Your task to perform on an android device: Go to calendar. Show me events next week Image 0: 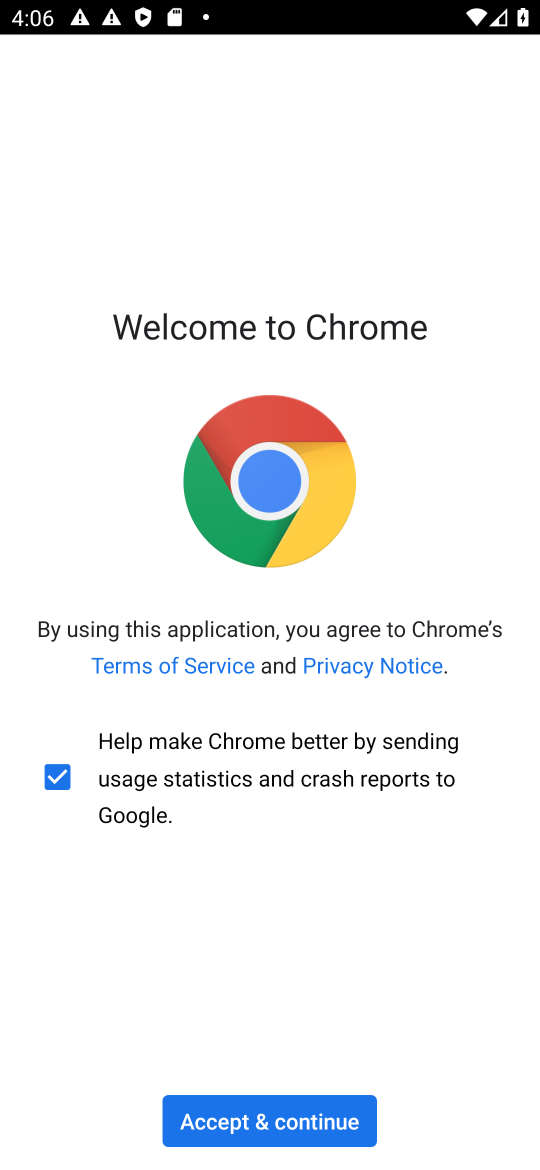
Step 0: press home button
Your task to perform on an android device: Go to calendar. Show me events next week Image 1: 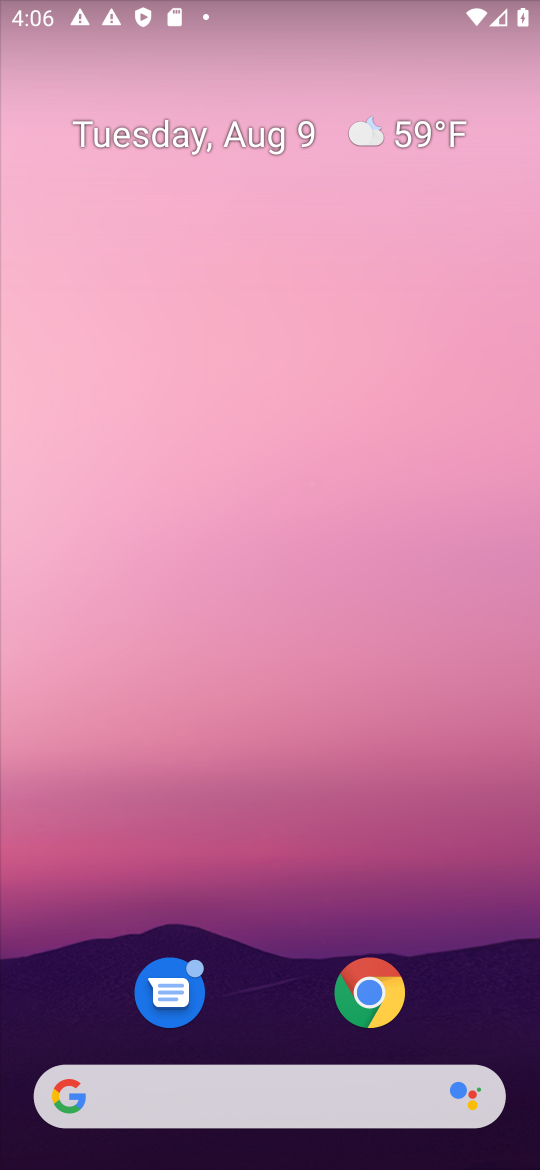
Step 1: drag from (203, 1102) to (276, 190)
Your task to perform on an android device: Go to calendar. Show me events next week Image 2: 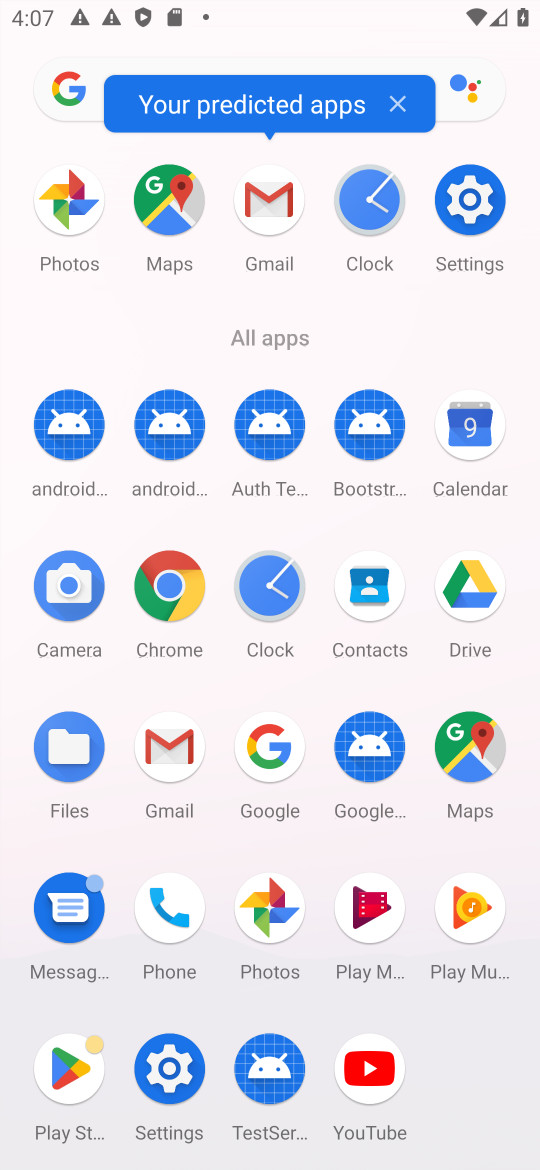
Step 2: click (476, 390)
Your task to perform on an android device: Go to calendar. Show me events next week Image 3: 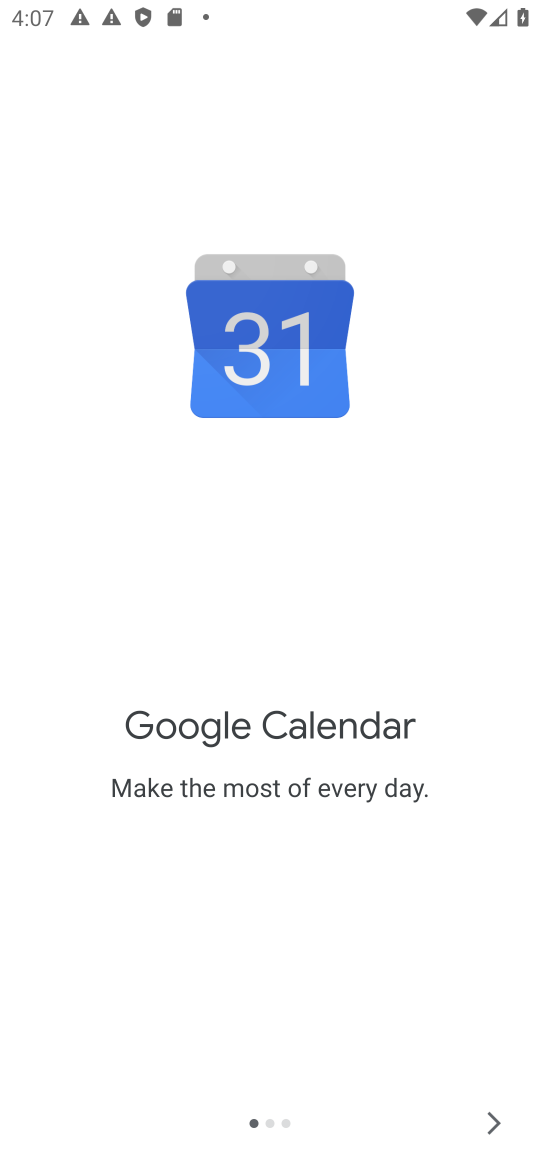
Step 3: click (493, 1120)
Your task to perform on an android device: Go to calendar. Show me events next week Image 4: 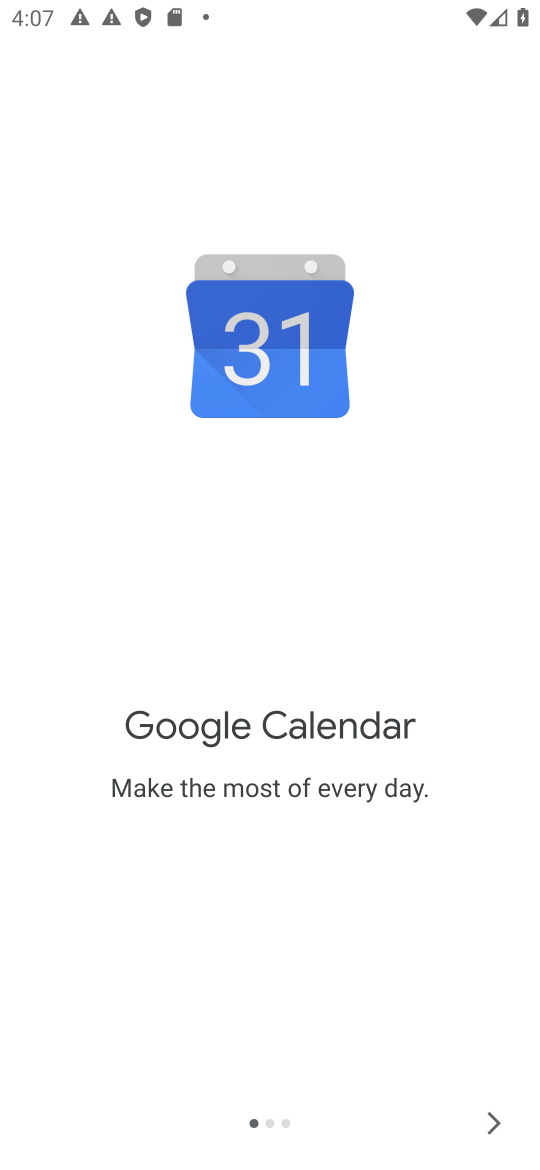
Step 4: click (493, 1120)
Your task to perform on an android device: Go to calendar. Show me events next week Image 5: 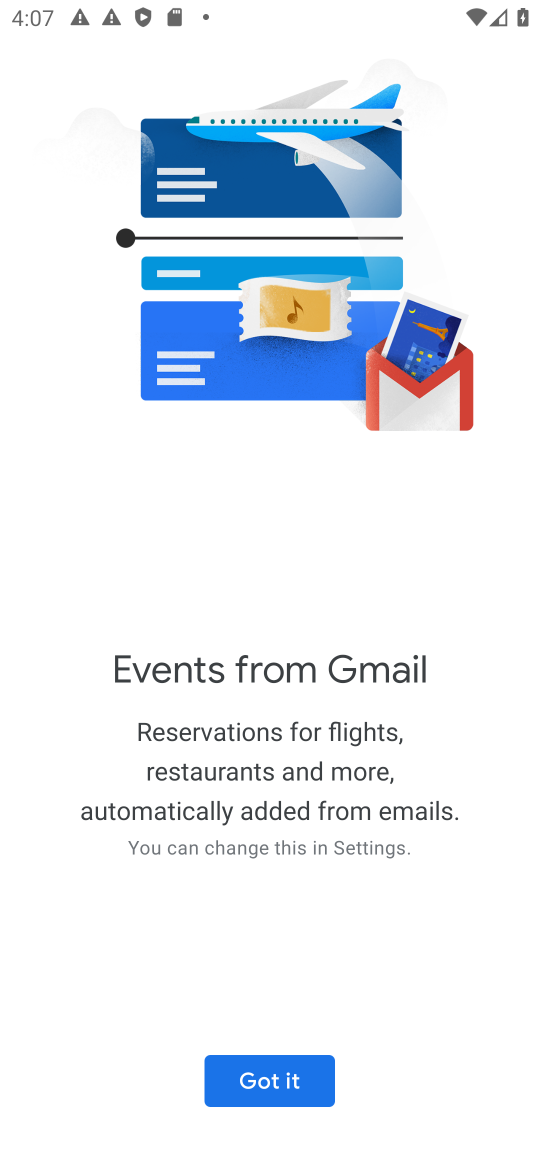
Step 5: click (288, 1061)
Your task to perform on an android device: Go to calendar. Show me events next week Image 6: 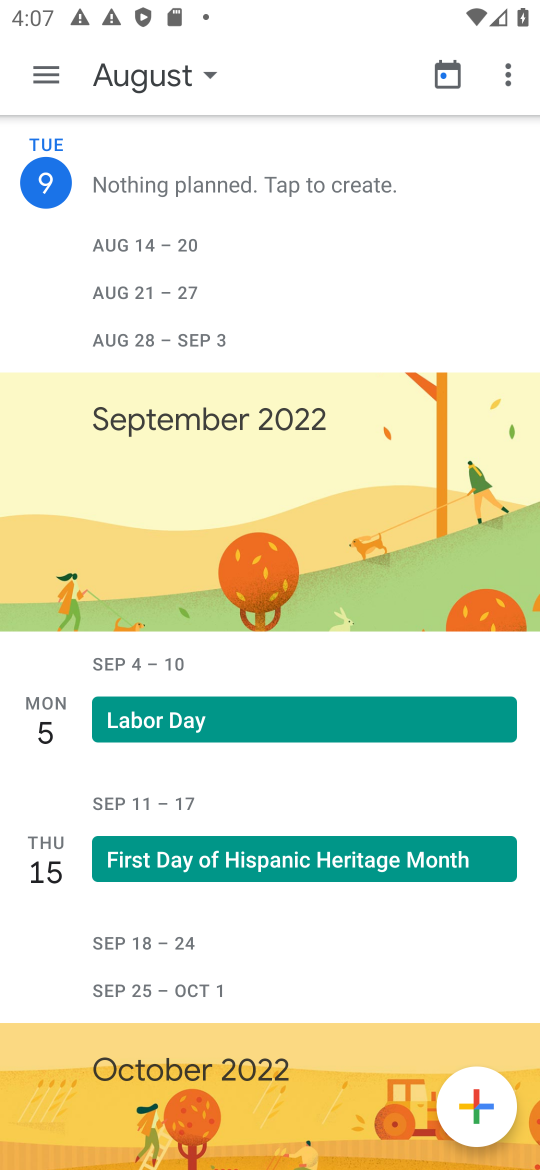
Step 6: click (215, 75)
Your task to perform on an android device: Go to calendar. Show me events next week Image 7: 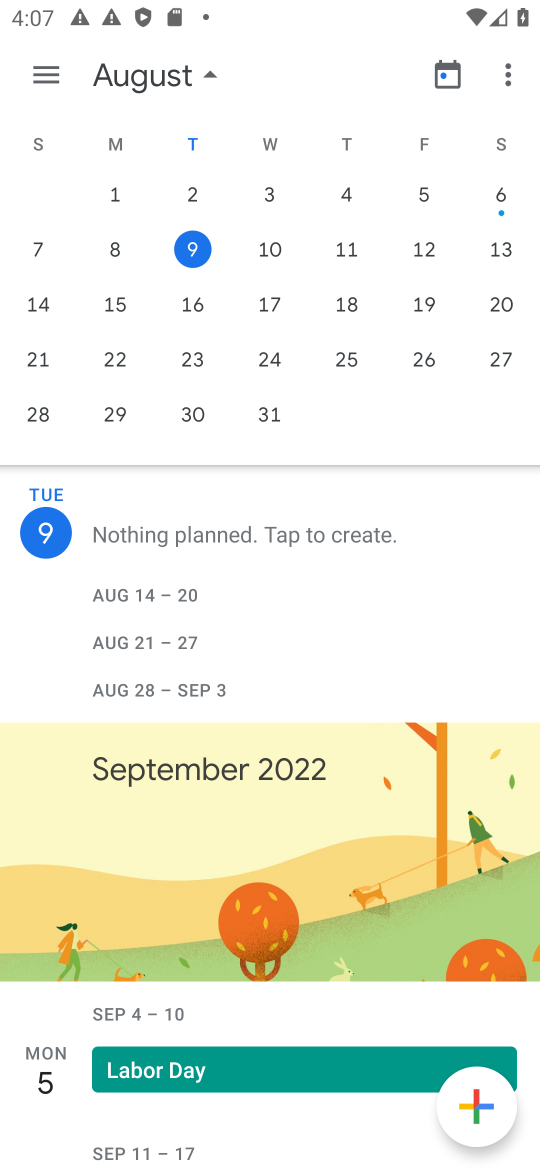
Step 7: click (282, 252)
Your task to perform on an android device: Go to calendar. Show me events next week Image 8: 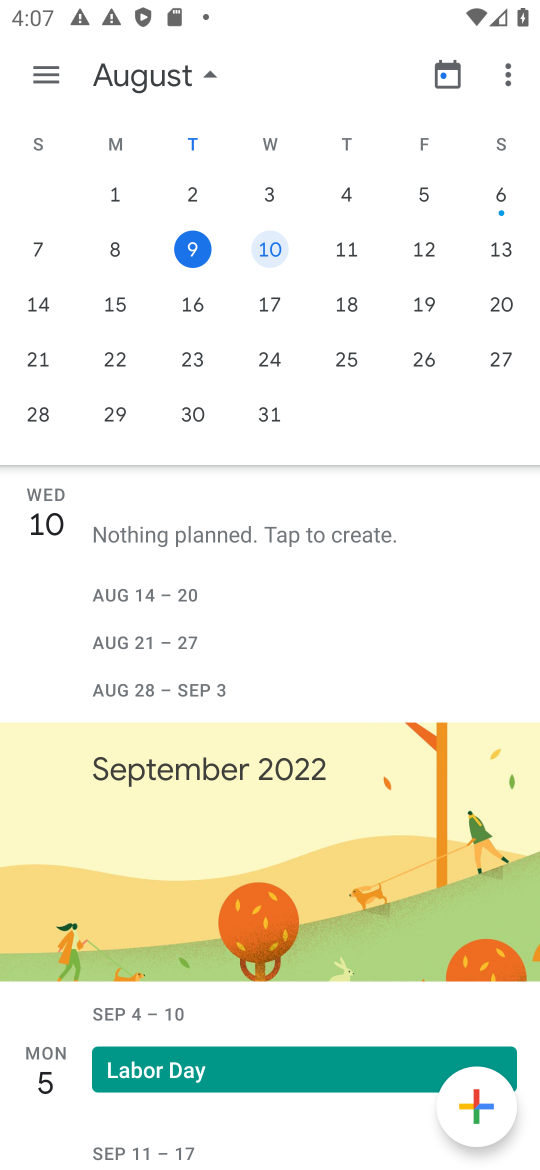
Step 8: click (272, 303)
Your task to perform on an android device: Go to calendar. Show me events next week Image 9: 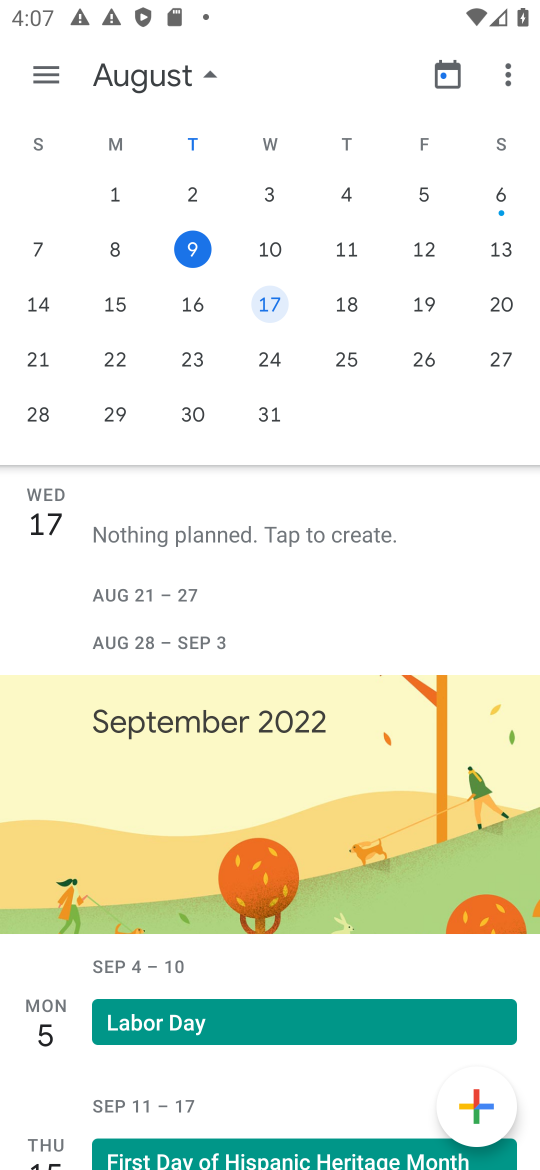
Step 9: click (8, 80)
Your task to perform on an android device: Go to calendar. Show me events next week Image 10: 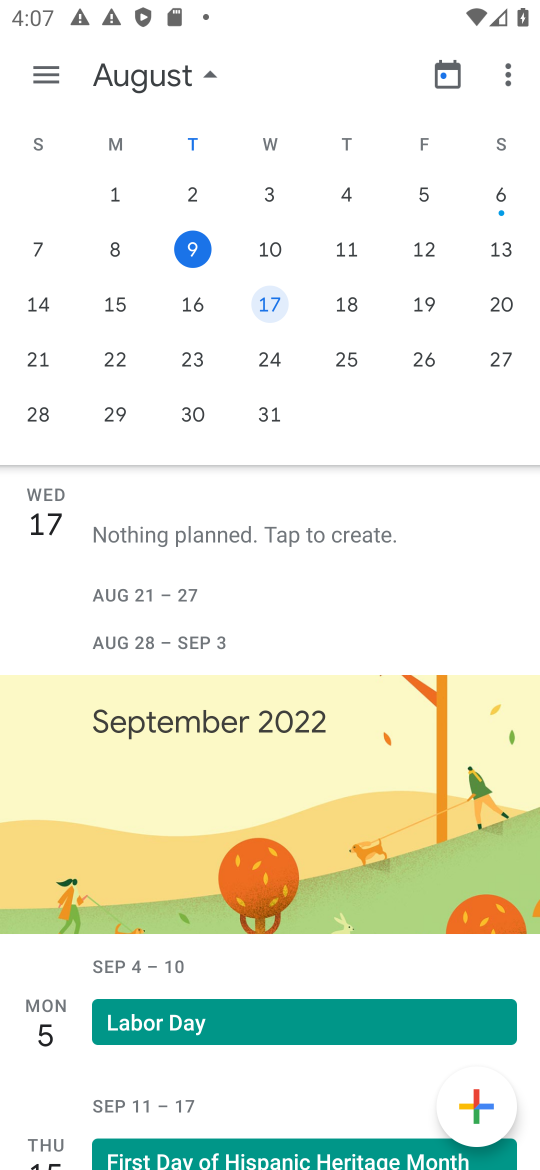
Step 10: click (29, 80)
Your task to perform on an android device: Go to calendar. Show me events next week Image 11: 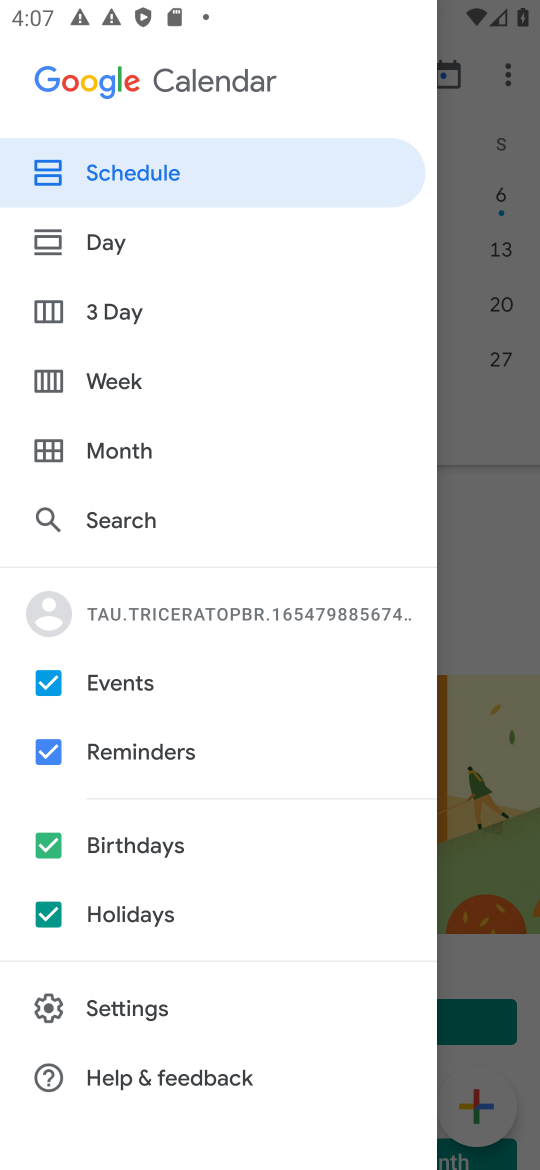
Step 11: task complete